Your task to perform on an android device: Search for Italian restaurants on Maps Image 0: 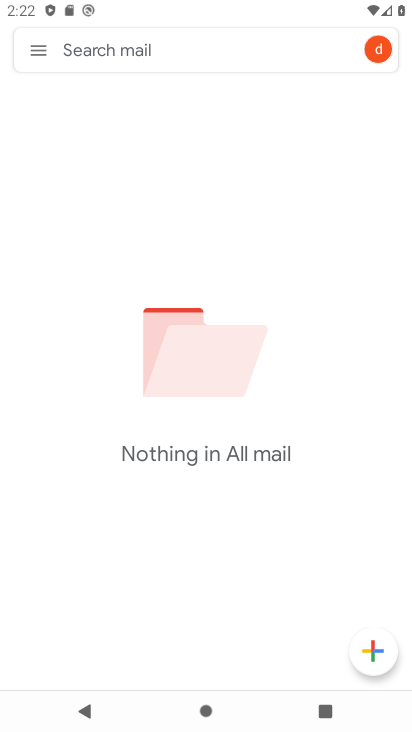
Step 0: press home button
Your task to perform on an android device: Search for Italian restaurants on Maps Image 1: 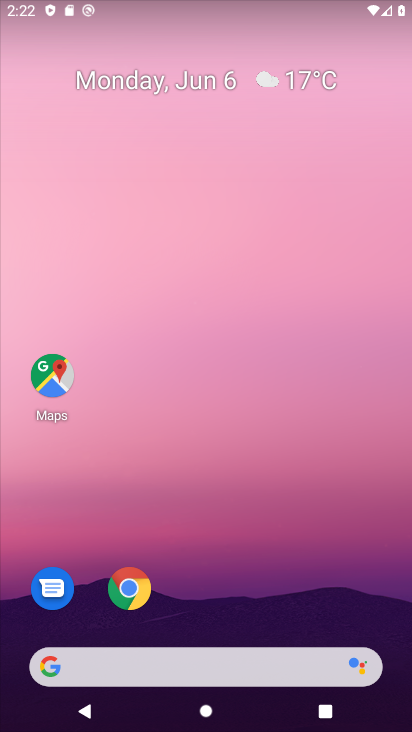
Step 1: click (47, 377)
Your task to perform on an android device: Search for Italian restaurants on Maps Image 2: 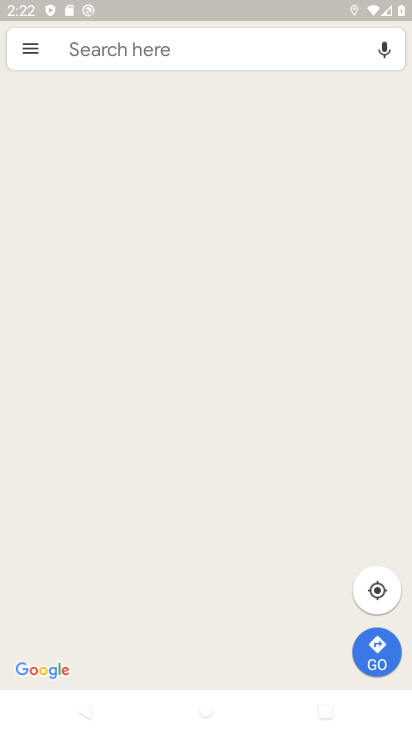
Step 2: click (380, 583)
Your task to perform on an android device: Search for Italian restaurants on Maps Image 3: 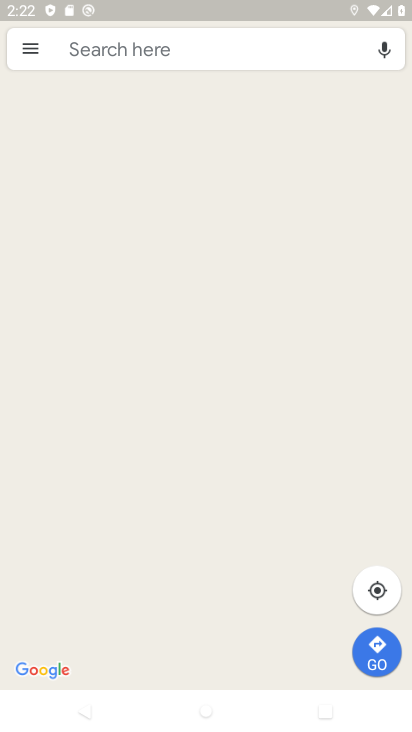
Step 3: click (33, 45)
Your task to perform on an android device: Search for Italian restaurants on Maps Image 4: 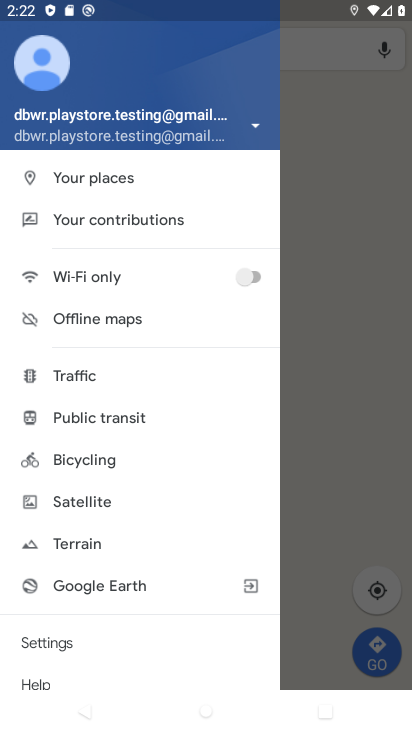
Step 4: click (300, 170)
Your task to perform on an android device: Search for Italian restaurants on Maps Image 5: 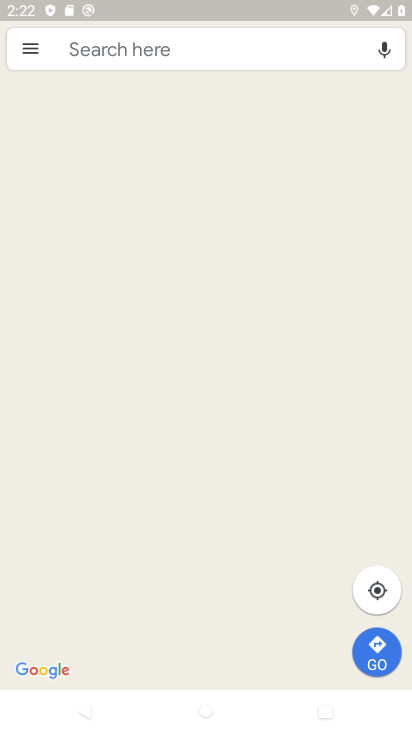
Step 5: drag from (238, 126) to (204, 465)
Your task to perform on an android device: Search for Italian restaurants on Maps Image 6: 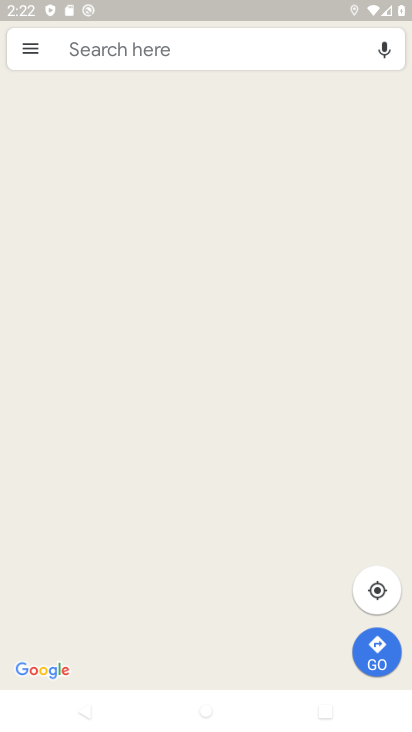
Step 6: drag from (192, 107) to (211, 512)
Your task to perform on an android device: Search for Italian restaurants on Maps Image 7: 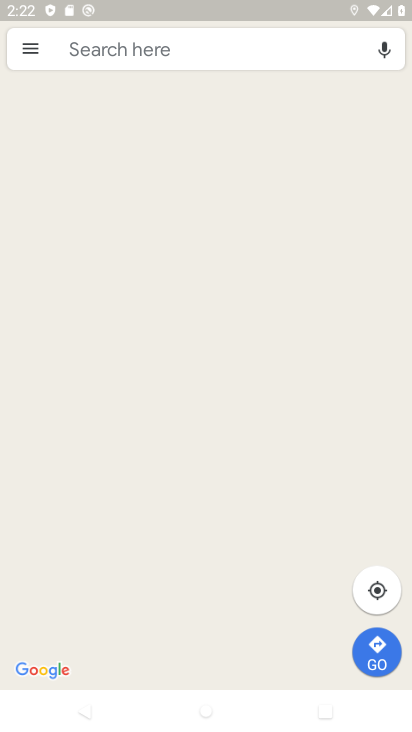
Step 7: click (335, 45)
Your task to perform on an android device: Search for Italian restaurants on Maps Image 8: 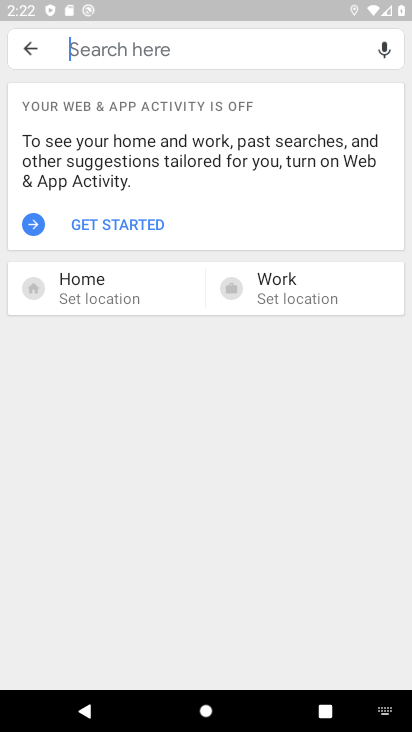
Step 8: click (122, 222)
Your task to perform on an android device: Search for Italian restaurants on Maps Image 9: 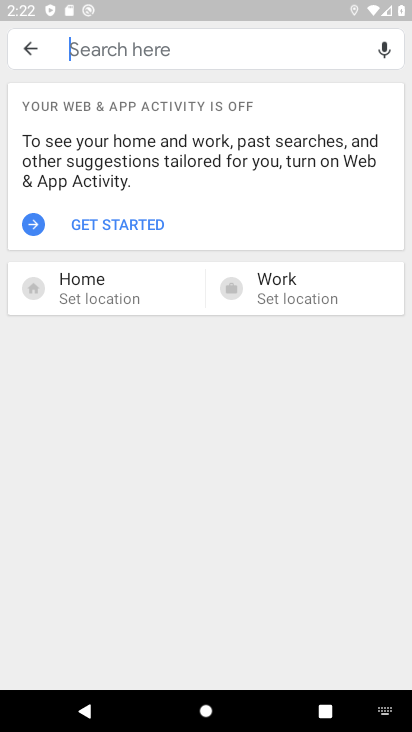
Step 9: click (100, 291)
Your task to perform on an android device: Search for Italian restaurants on Maps Image 10: 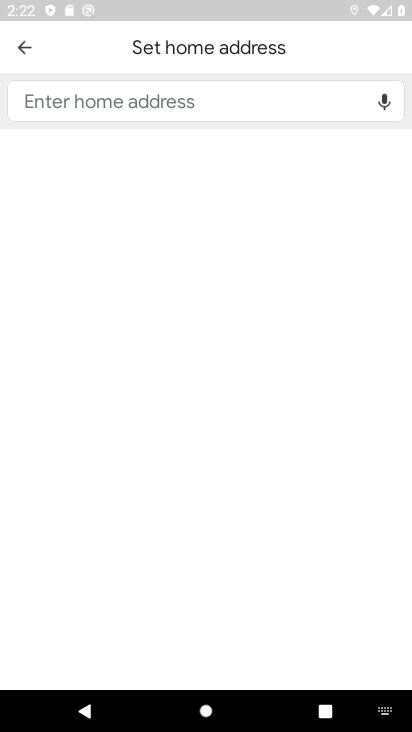
Step 10: click (31, 51)
Your task to perform on an android device: Search for Italian restaurants on Maps Image 11: 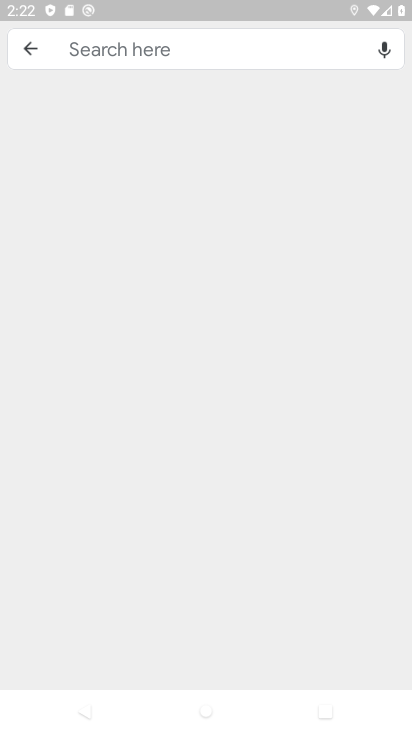
Step 11: click (154, 56)
Your task to perform on an android device: Search for Italian restaurants on Maps Image 12: 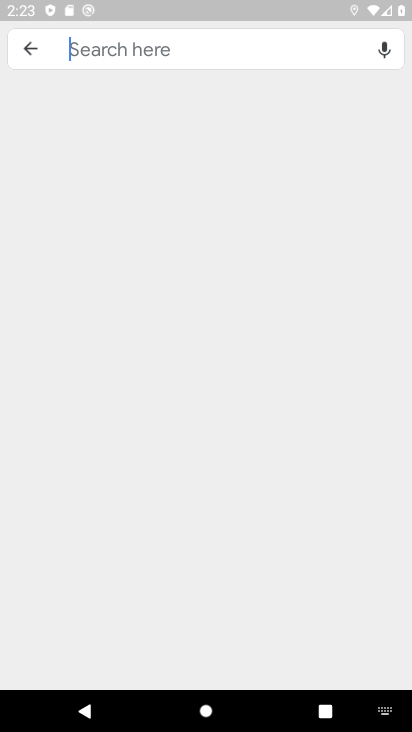
Step 12: task complete